Your task to perform on an android device: What's the weather? Image 0: 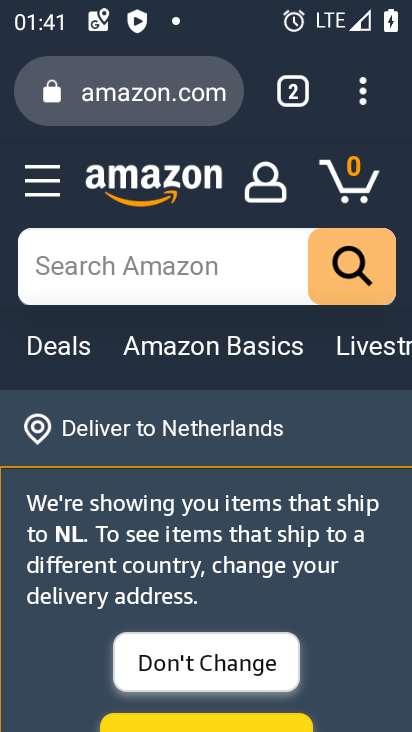
Step 0: press home button
Your task to perform on an android device: What's the weather? Image 1: 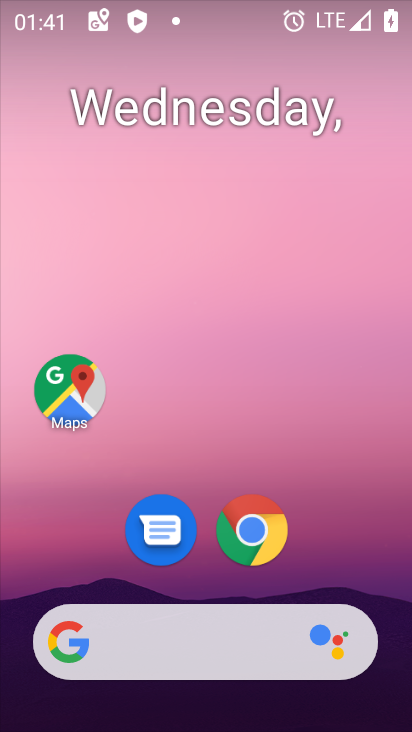
Step 1: drag from (346, 565) to (320, 167)
Your task to perform on an android device: What's the weather? Image 2: 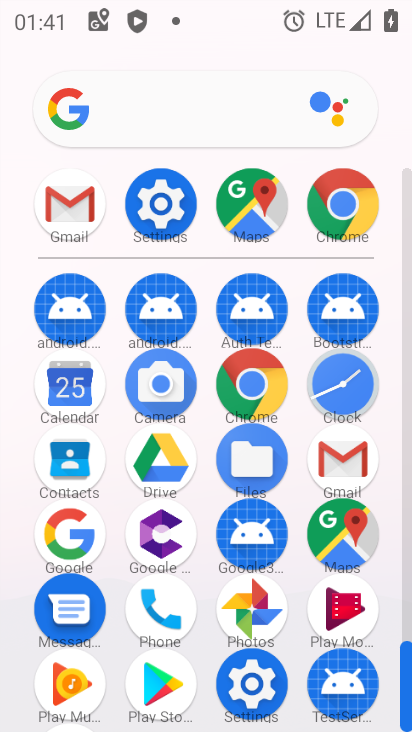
Step 2: click (358, 207)
Your task to perform on an android device: What's the weather? Image 3: 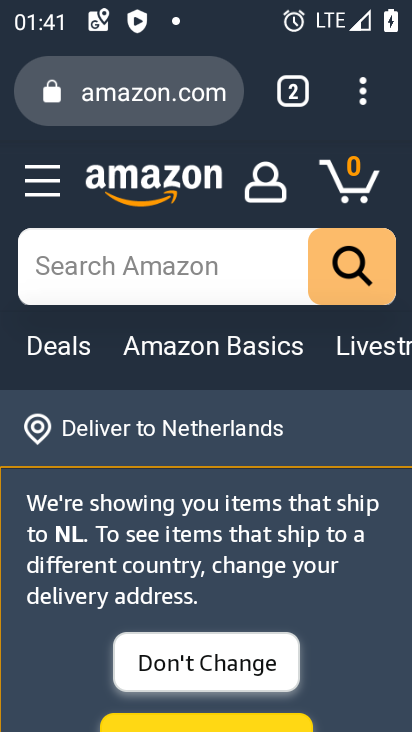
Step 3: click (202, 100)
Your task to perform on an android device: What's the weather? Image 4: 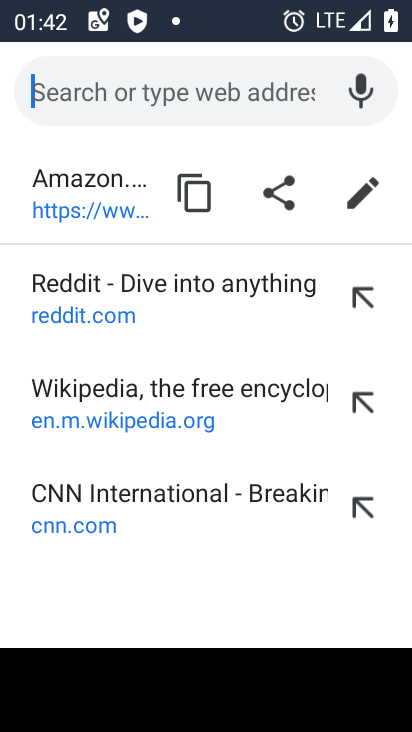
Step 4: type "what's the weather "
Your task to perform on an android device: What's the weather? Image 5: 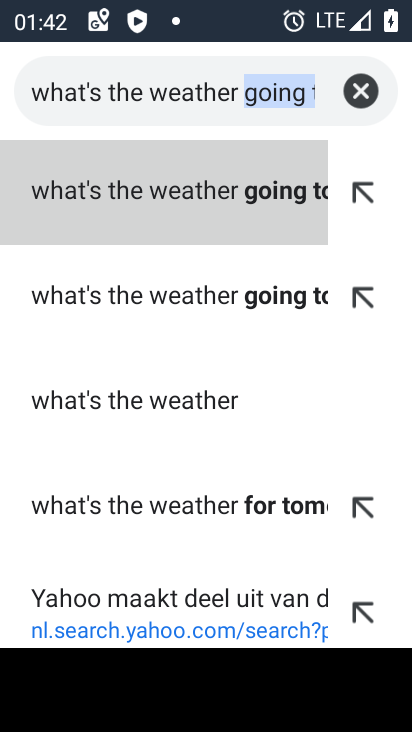
Step 5: click (174, 204)
Your task to perform on an android device: What's the weather? Image 6: 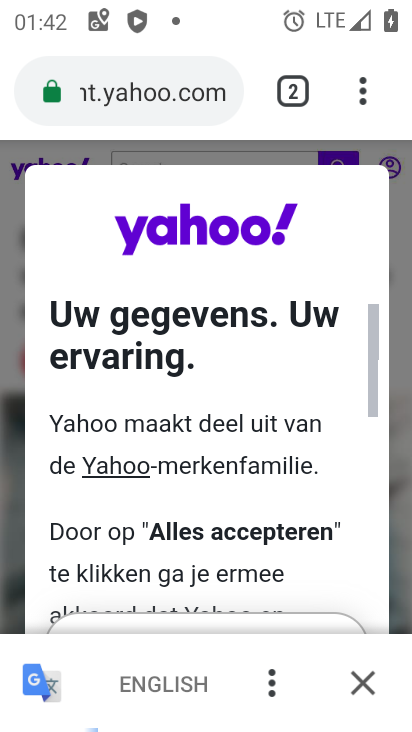
Step 6: drag from (268, 599) to (303, 197)
Your task to perform on an android device: What's the weather? Image 7: 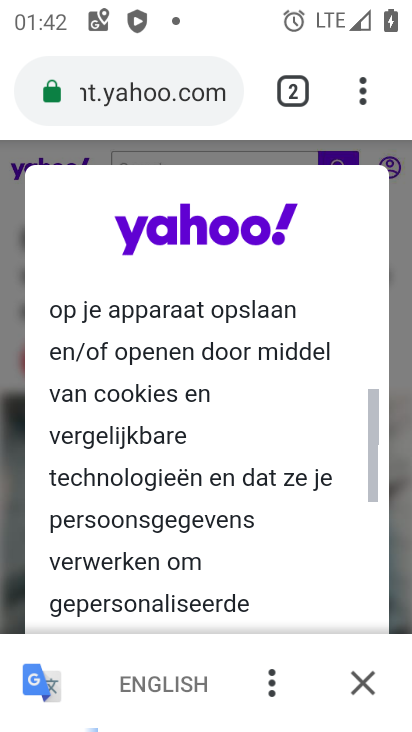
Step 7: drag from (284, 554) to (295, 168)
Your task to perform on an android device: What's the weather? Image 8: 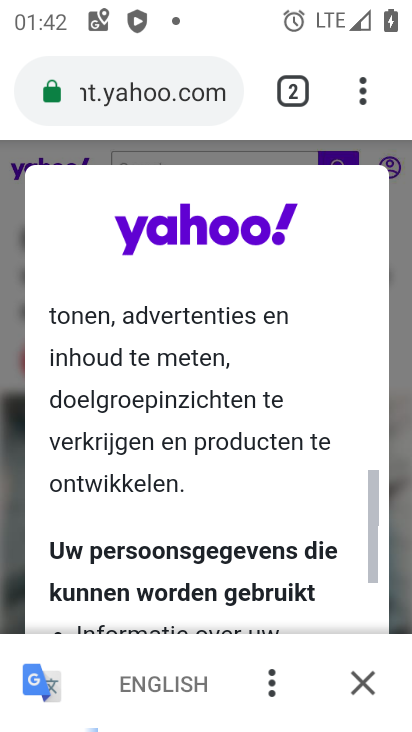
Step 8: drag from (306, 555) to (321, 236)
Your task to perform on an android device: What's the weather? Image 9: 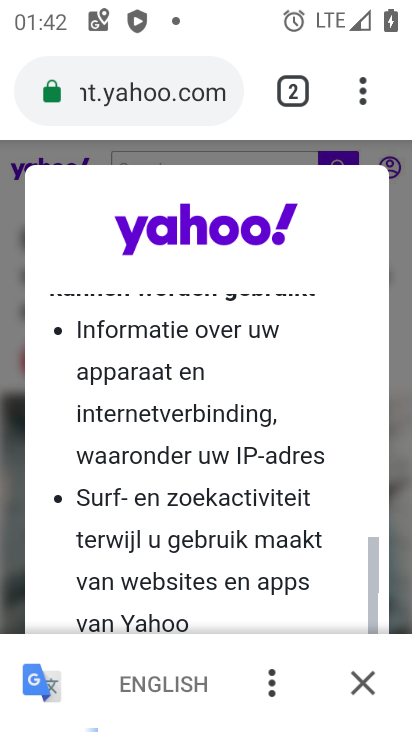
Step 9: drag from (270, 571) to (316, 250)
Your task to perform on an android device: What's the weather? Image 10: 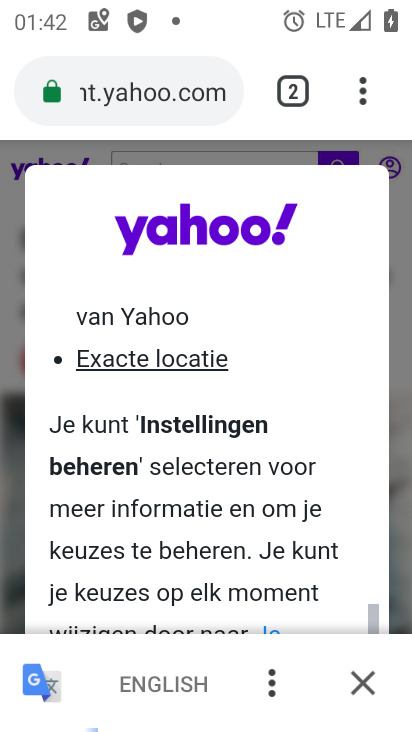
Step 10: click (375, 700)
Your task to perform on an android device: What's the weather? Image 11: 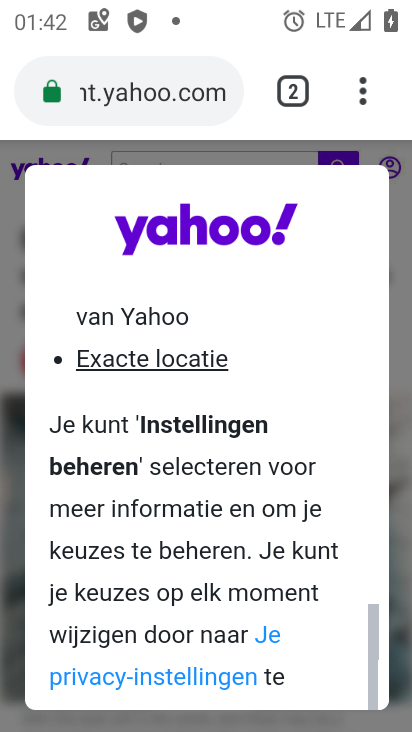
Step 11: drag from (300, 592) to (329, 284)
Your task to perform on an android device: What's the weather? Image 12: 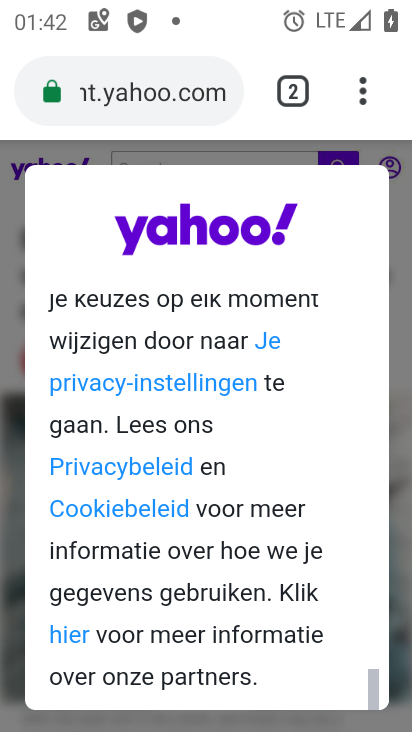
Step 12: drag from (321, 647) to (354, 281)
Your task to perform on an android device: What's the weather? Image 13: 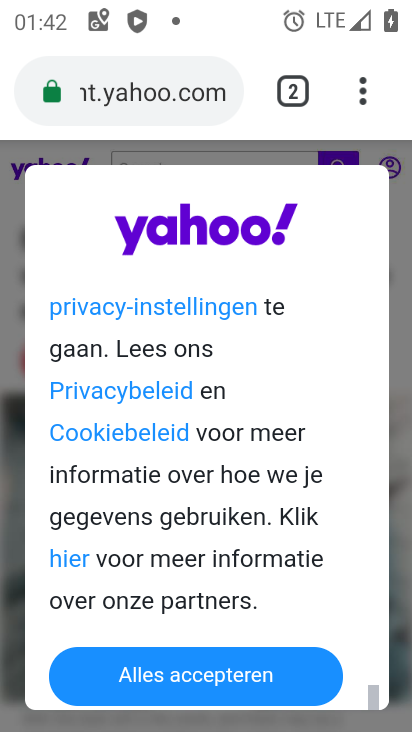
Step 13: click (298, 677)
Your task to perform on an android device: What's the weather? Image 14: 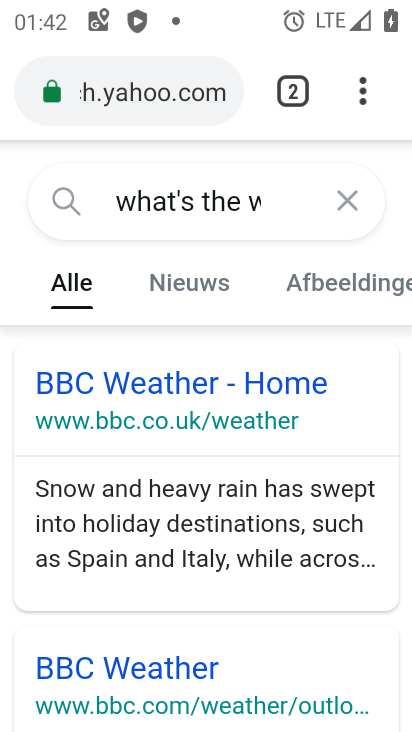
Step 14: click (198, 391)
Your task to perform on an android device: What's the weather? Image 15: 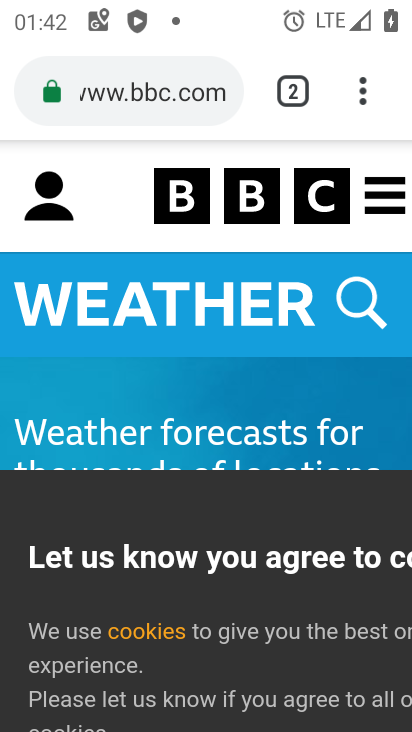
Step 15: task complete